Your task to perform on an android device: open the mobile data screen to see how much data has been used Image 0: 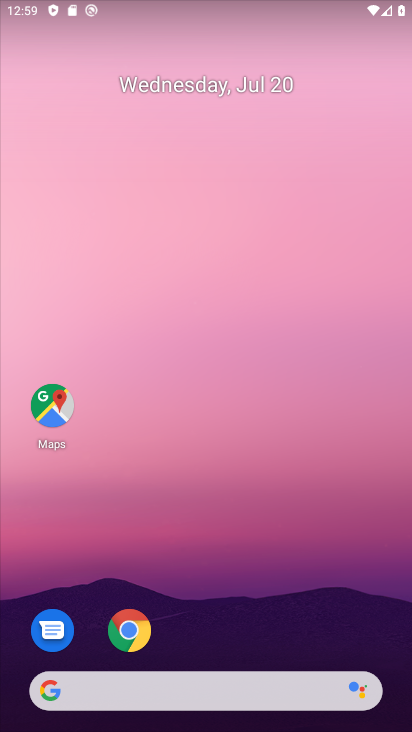
Step 0: drag from (283, 595) to (254, 54)
Your task to perform on an android device: open the mobile data screen to see how much data has been used Image 1: 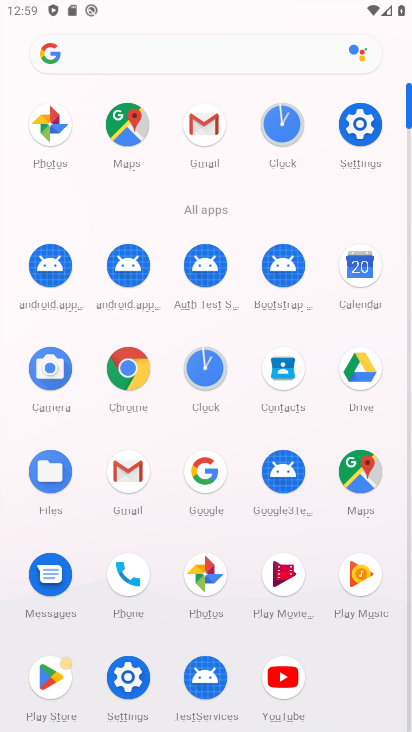
Step 1: click (361, 120)
Your task to perform on an android device: open the mobile data screen to see how much data has been used Image 2: 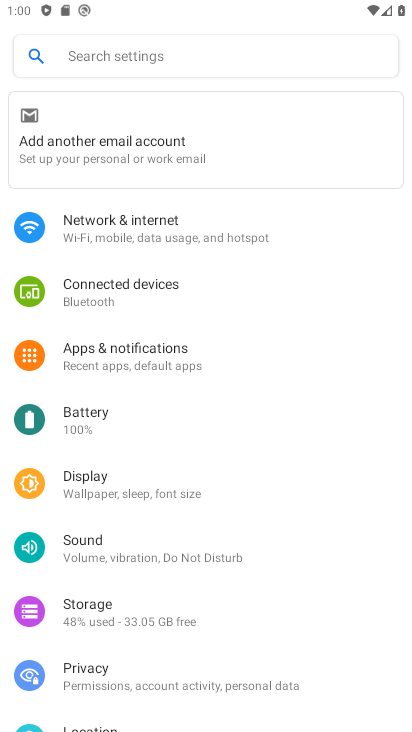
Step 2: click (153, 221)
Your task to perform on an android device: open the mobile data screen to see how much data has been used Image 3: 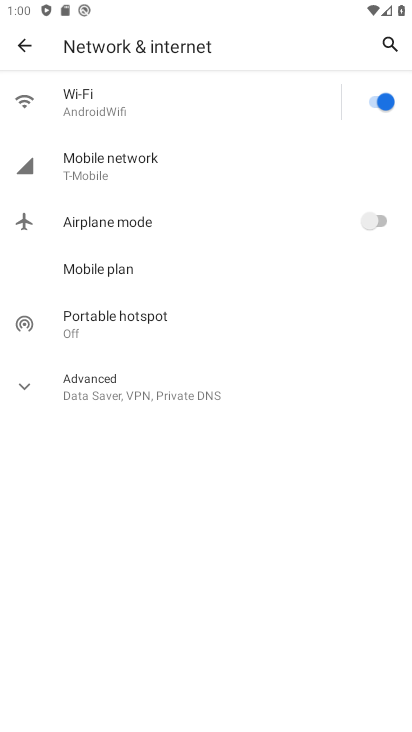
Step 3: click (153, 158)
Your task to perform on an android device: open the mobile data screen to see how much data has been used Image 4: 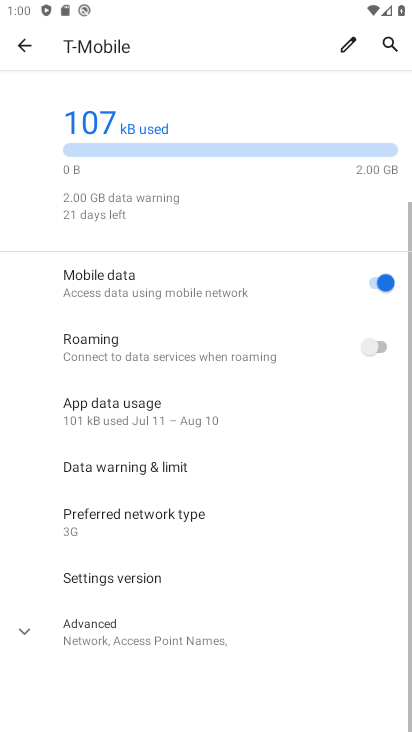
Step 4: click (155, 174)
Your task to perform on an android device: open the mobile data screen to see how much data has been used Image 5: 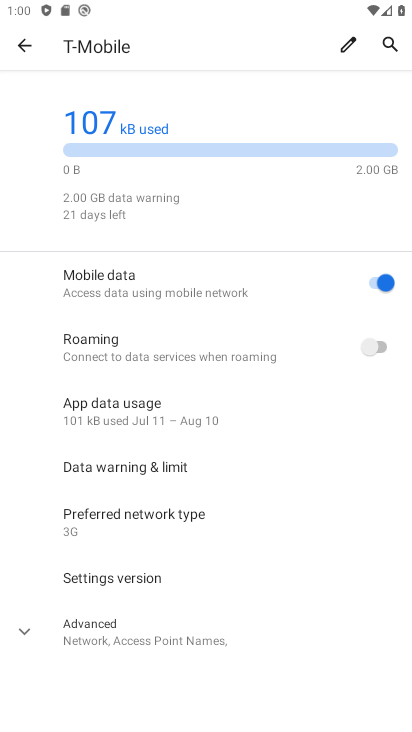
Step 5: task complete